Your task to perform on an android device: delete a single message in the gmail app Image 0: 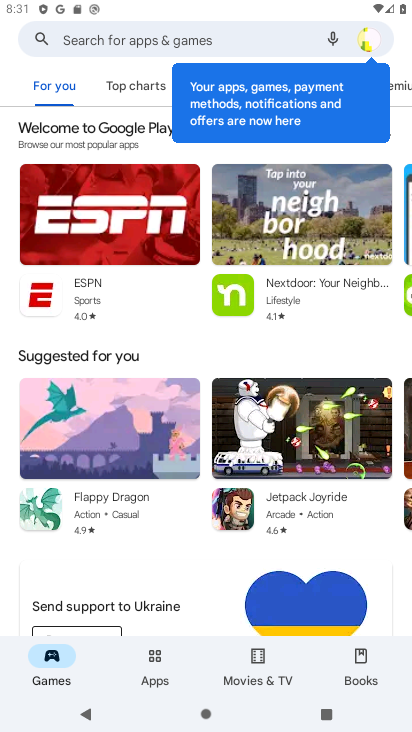
Step 0: press home button
Your task to perform on an android device: delete a single message in the gmail app Image 1: 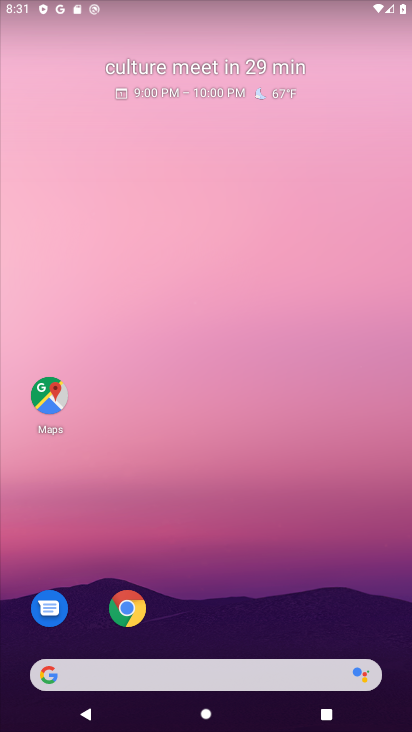
Step 1: drag from (209, 635) to (188, 70)
Your task to perform on an android device: delete a single message in the gmail app Image 2: 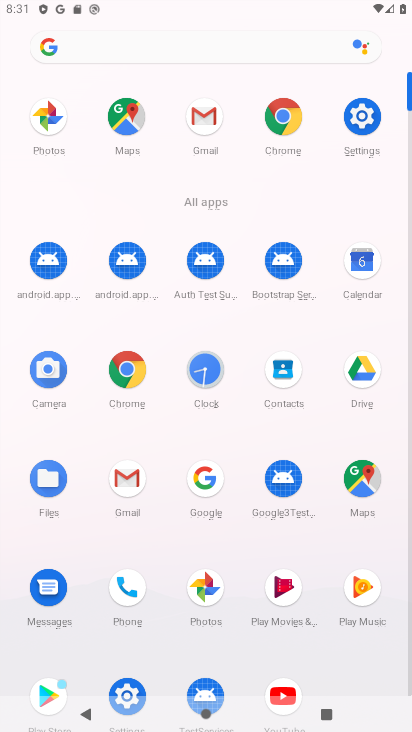
Step 2: click (216, 129)
Your task to perform on an android device: delete a single message in the gmail app Image 3: 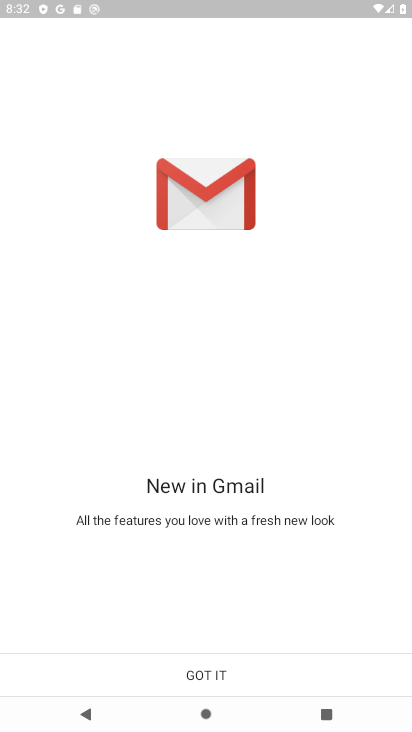
Step 3: click (183, 666)
Your task to perform on an android device: delete a single message in the gmail app Image 4: 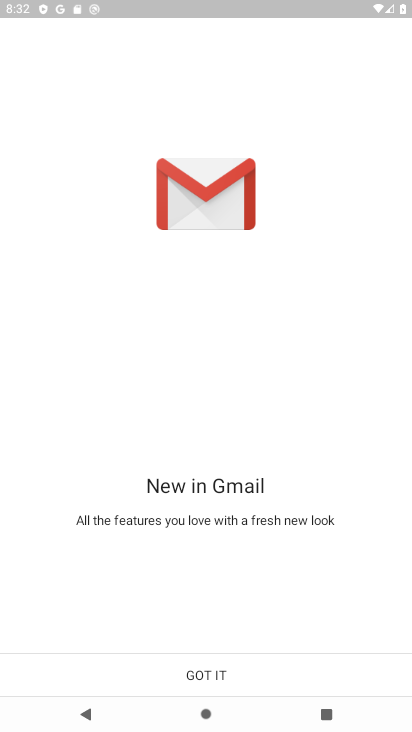
Step 4: click (183, 666)
Your task to perform on an android device: delete a single message in the gmail app Image 5: 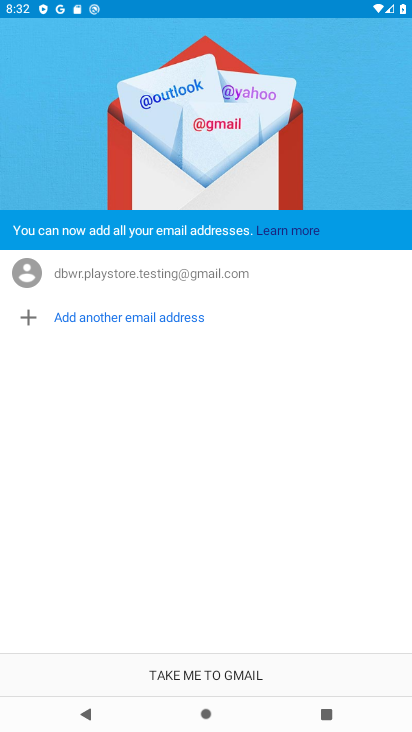
Step 5: click (183, 666)
Your task to perform on an android device: delete a single message in the gmail app Image 6: 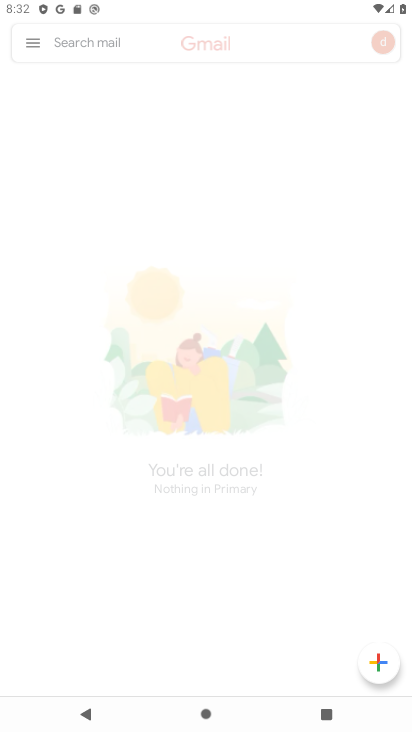
Step 6: click (51, 55)
Your task to perform on an android device: delete a single message in the gmail app Image 7: 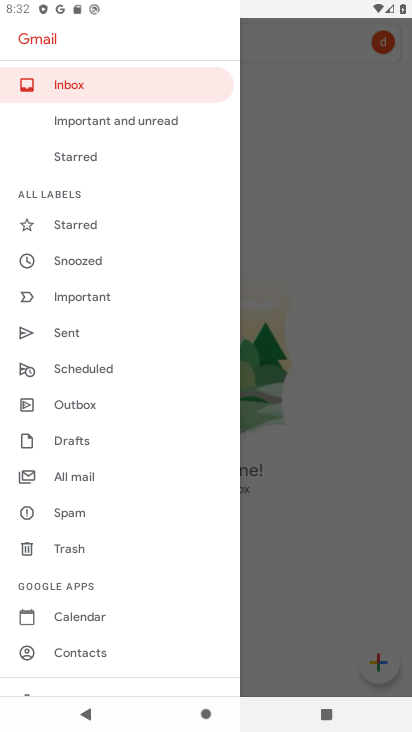
Step 7: task complete